Your task to perform on an android device: choose inbox layout in the gmail app Image 0: 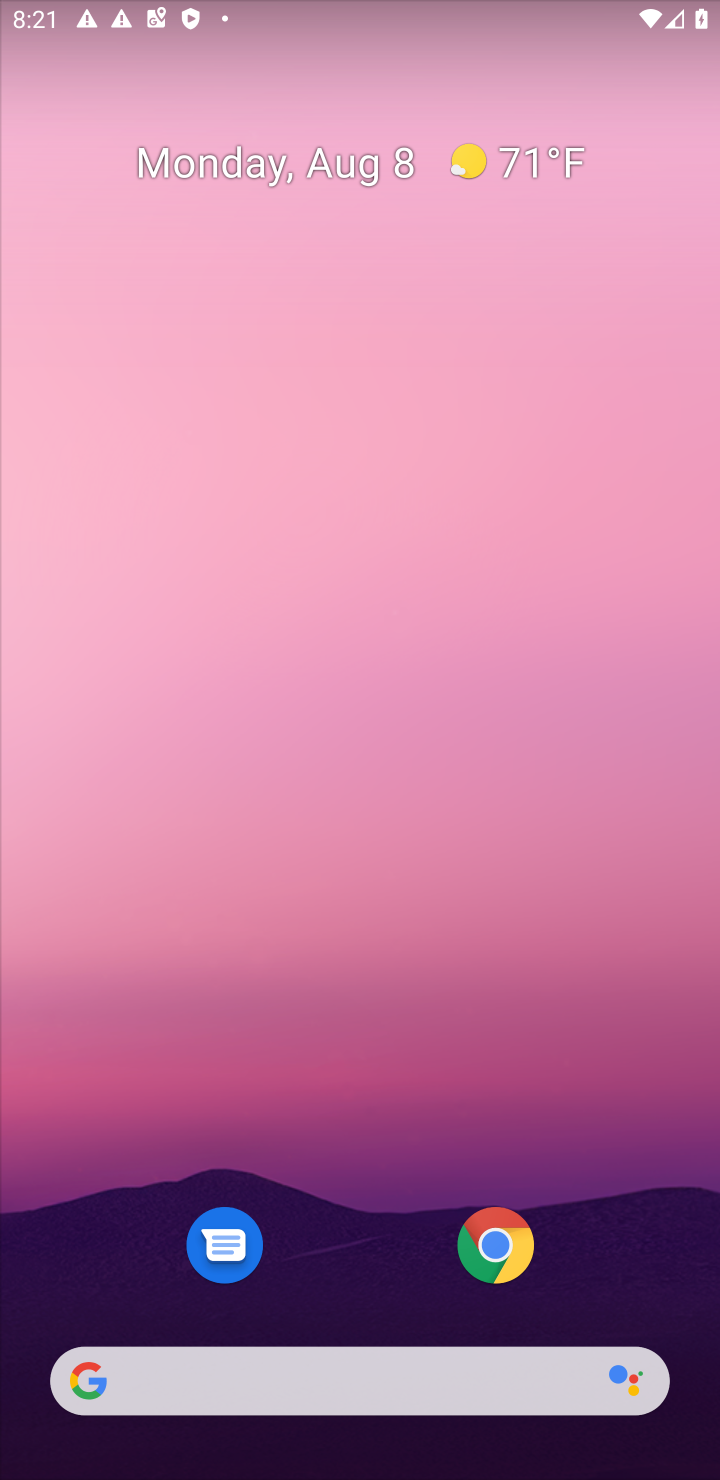
Step 0: drag from (376, 1329) to (509, 181)
Your task to perform on an android device: choose inbox layout in the gmail app Image 1: 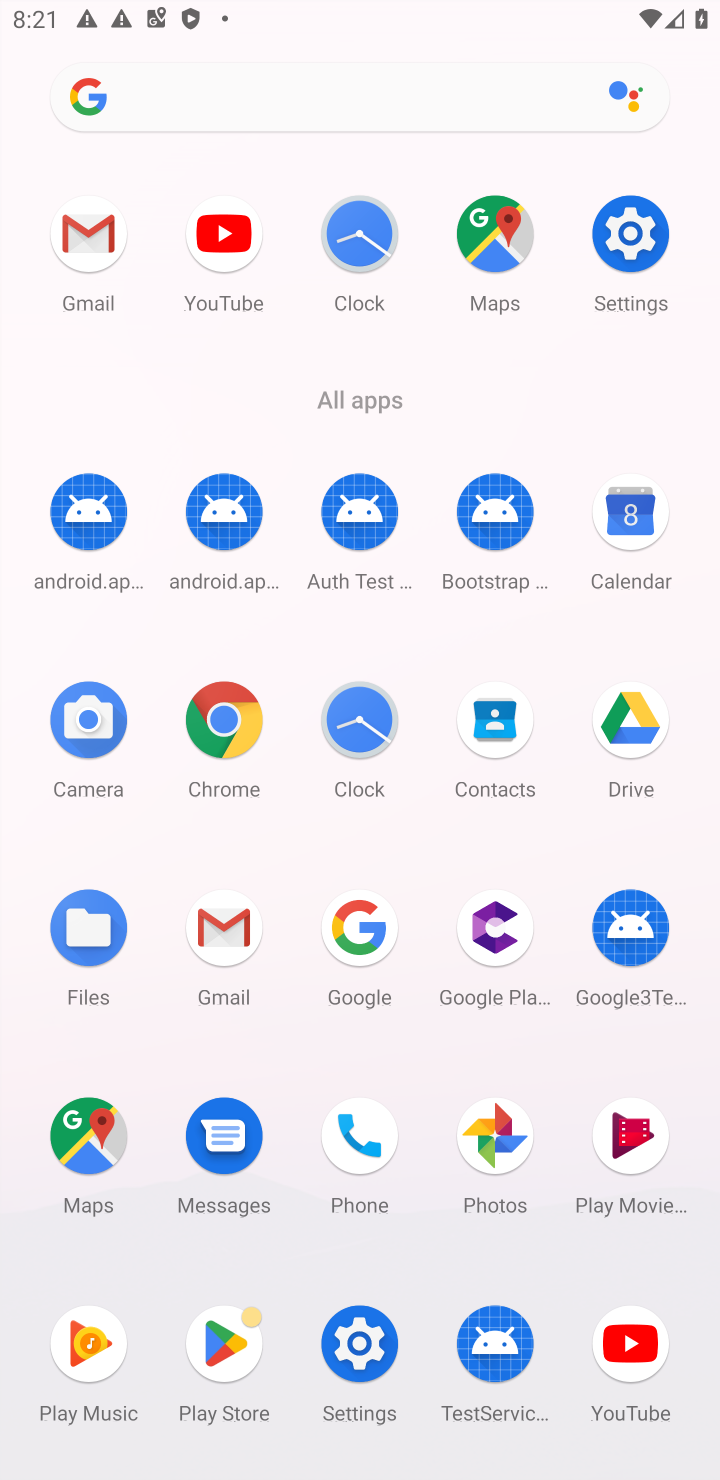
Step 1: click (224, 949)
Your task to perform on an android device: choose inbox layout in the gmail app Image 2: 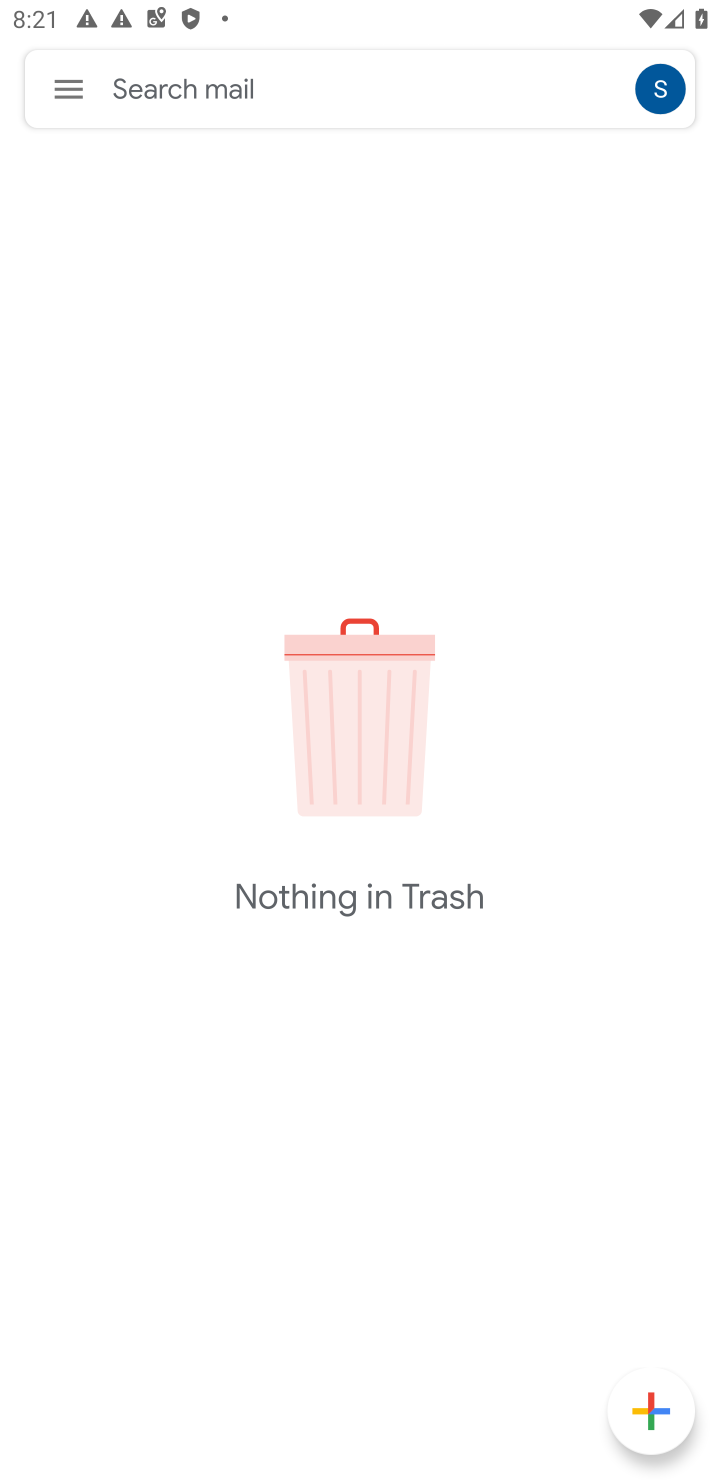
Step 2: click (74, 85)
Your task to perform on an android device: choose inbox layout in the gmail app Image 3: 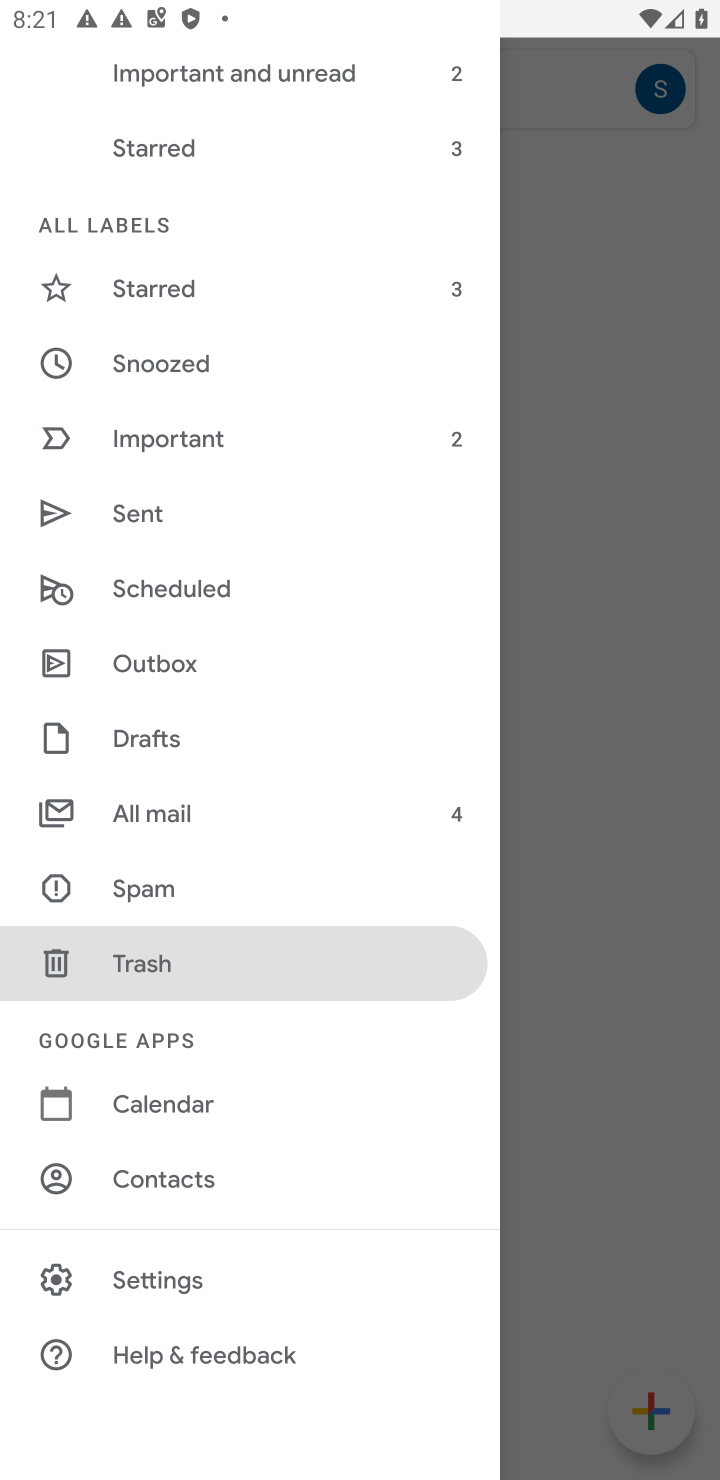
Step 3: click (148, 1277)
Your task to perform on an android device: choose inbox layout in the gmail app Image 4: 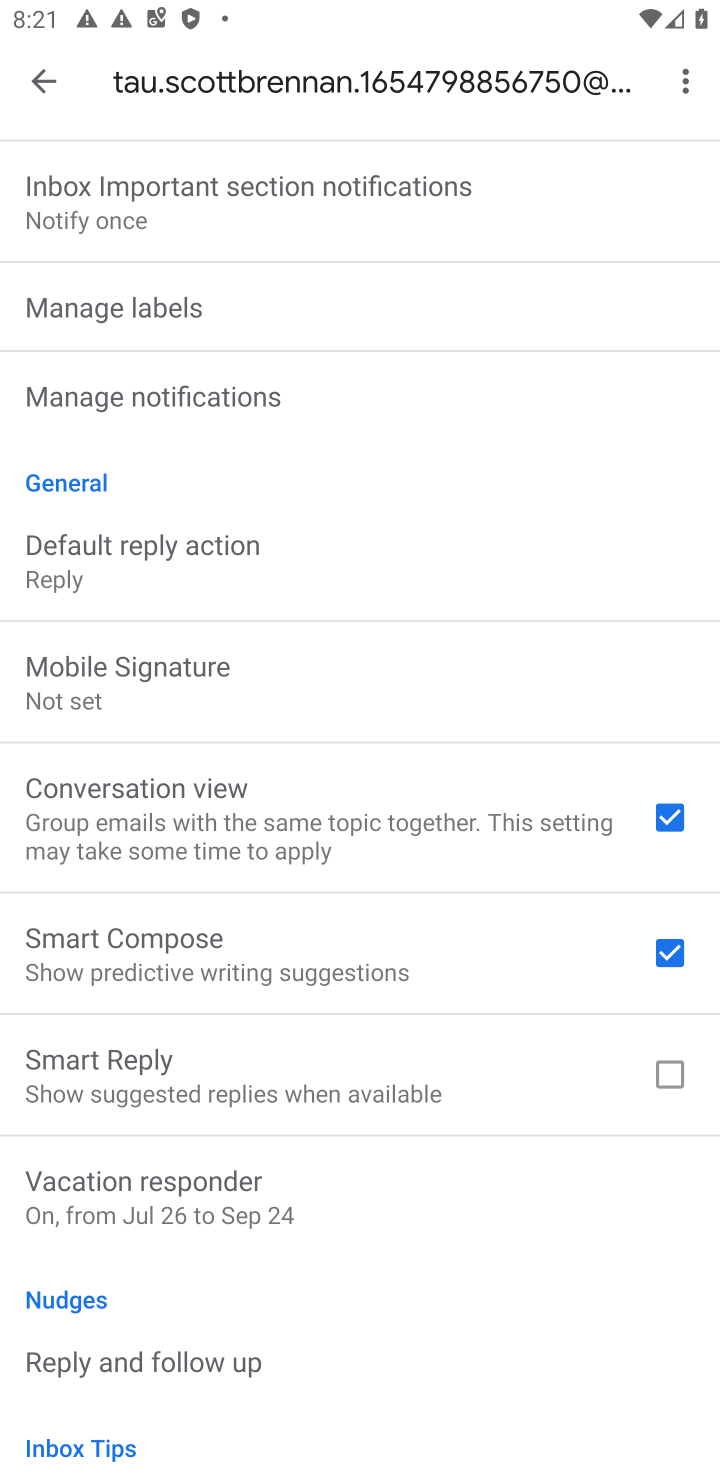
Step 4: drag from (192, 430) to (170, 1274)
Your task to perform on an android device: choose inbox layout in the gmail app Image 5: 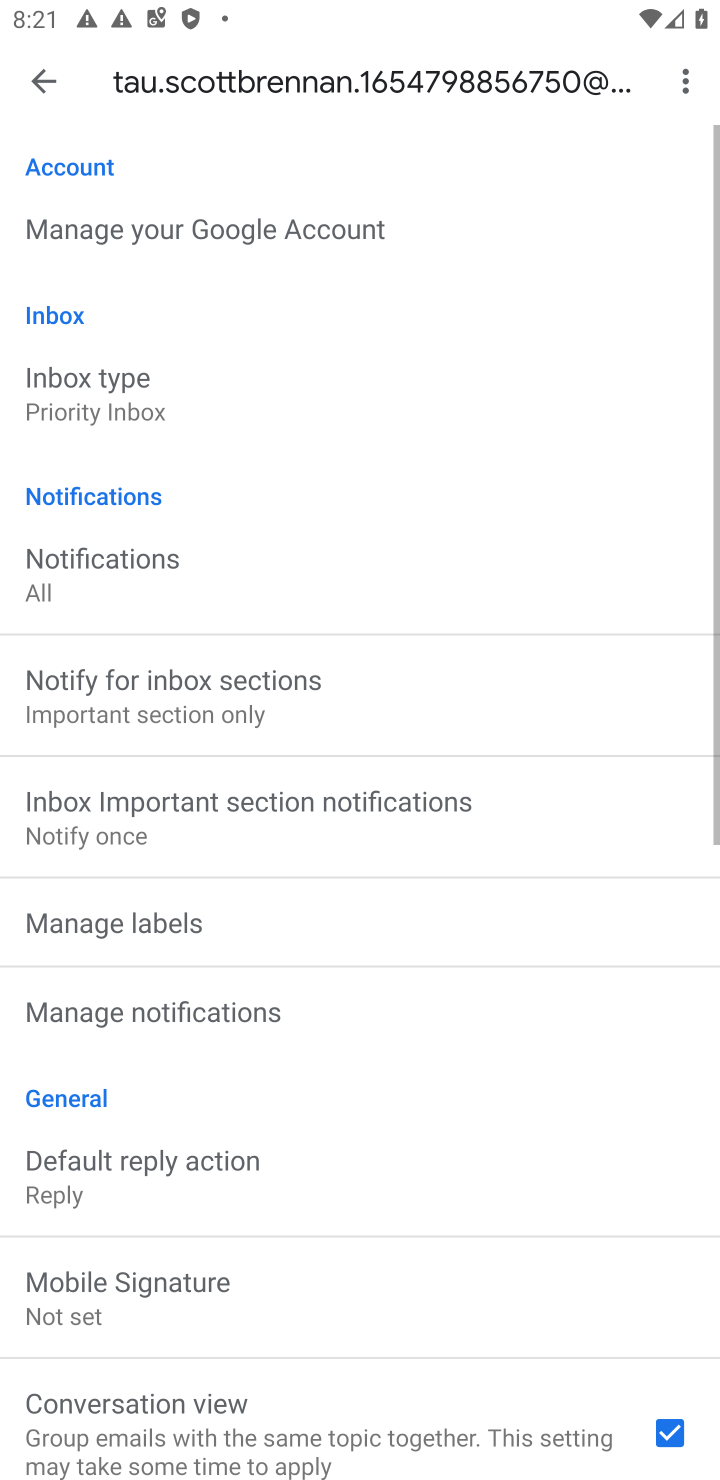
Step 5: click (160, 413)
Your task to perform on an android device: choose inbox layout in the gmail app Image 6: 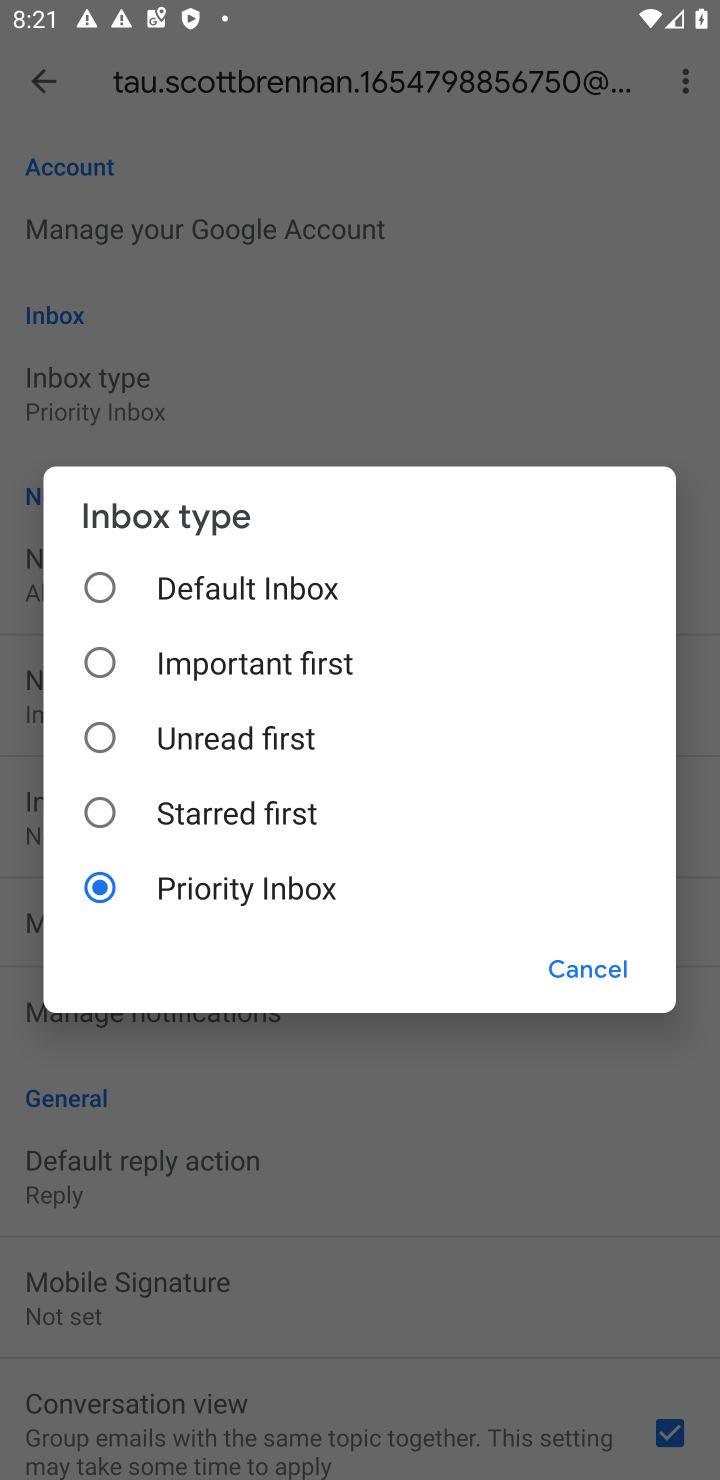
Step 6: click (237, 589)
Your task to perform on an android device: choose inbox layout in the gmail app Image 7: 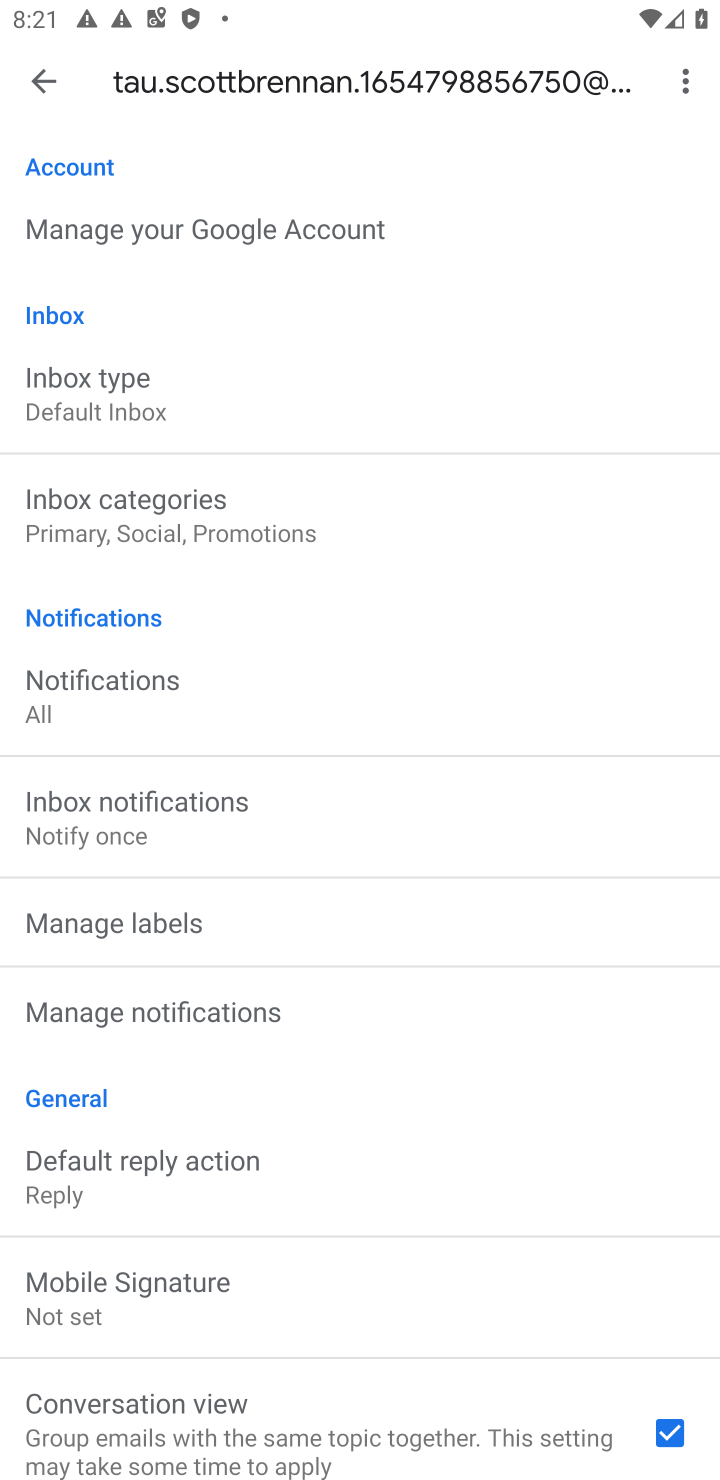
Step 7: task complete